Your task to perform on an android device: star an email in the gmail app Image 0: 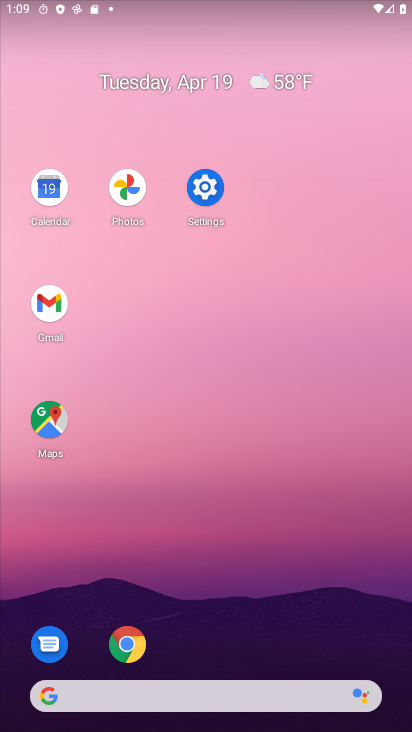
Step 0: click (53, 304)
Your task to perform on an android device: star an email in the gmail app Image 1: 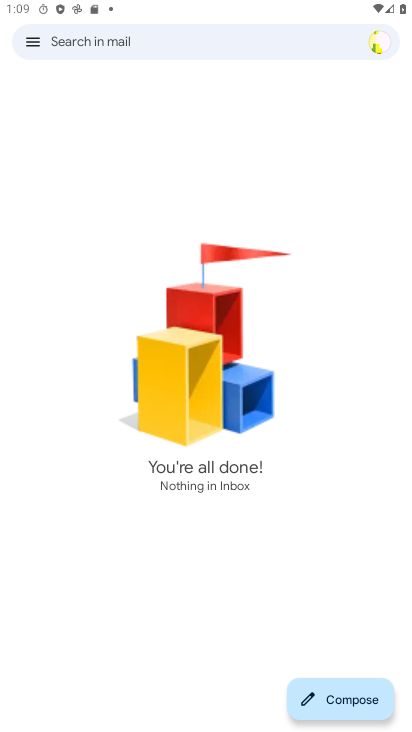
Step 1: click (30, 44)
Your task to perform on an android device: star an email in the gmail app Image 2: 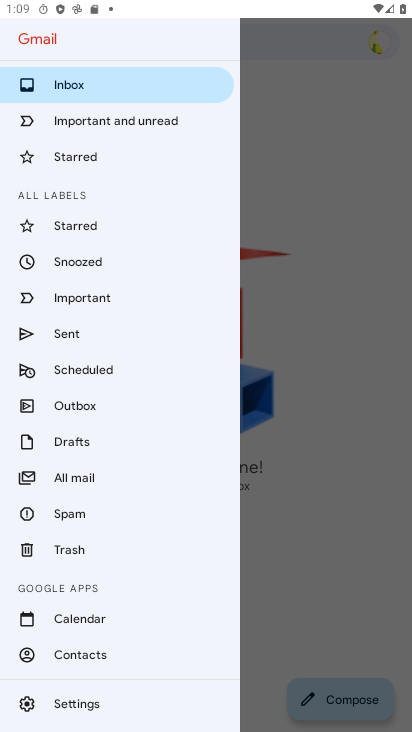
Step 2: click (109, 477)
Your task to perform on an android device: star an email in the gmail app Image 3: 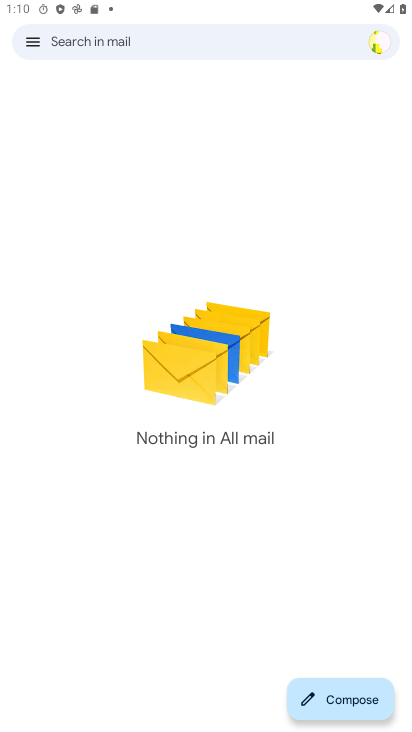
Step 3: click (36, 40)
Your task to perform on an android device: star an email in the gmail app Image 4: 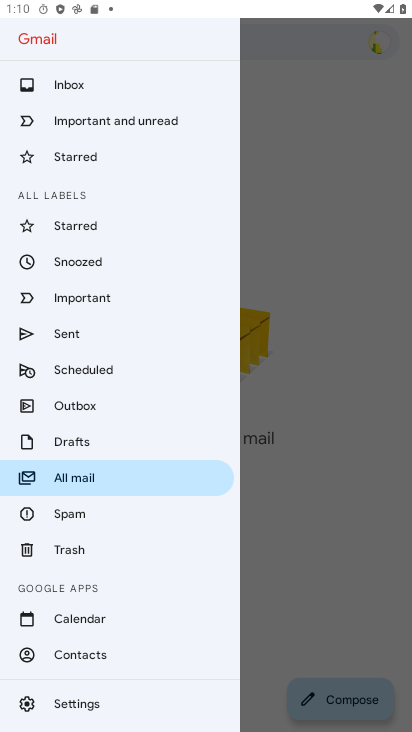
Step 4: click (112, 478)
Your task to perform on an android device: star an email in the gmail app Image 5: 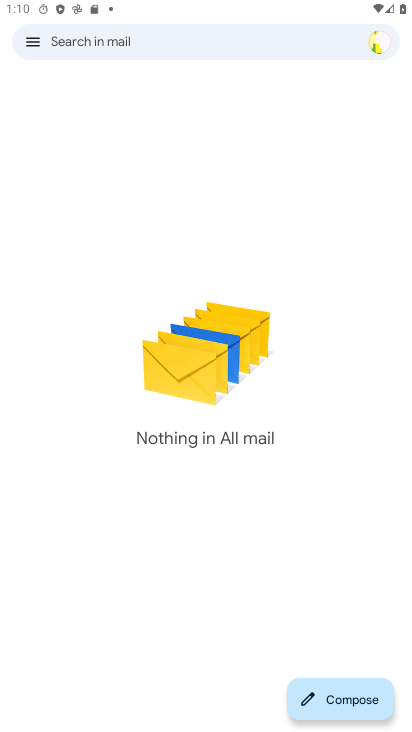
Step 5: task complete